Your task to perform on an android device: Do I have any events today? Image 0: 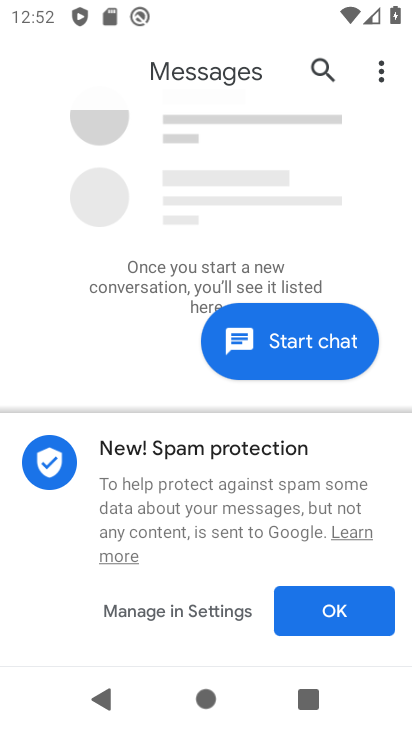
Step 0: press back button
Your task to perform on an android device: Do I have any events today? Image 1: 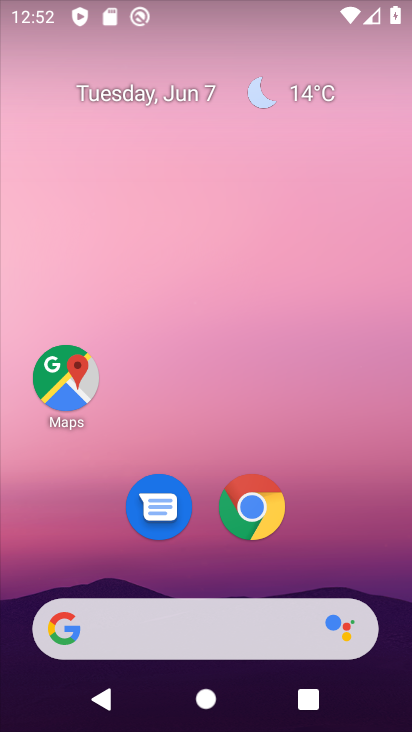
Step 1: drag from (184, 566) to (308, 106)
Your task to perform on an android device: Do I have any events today? Image 2: 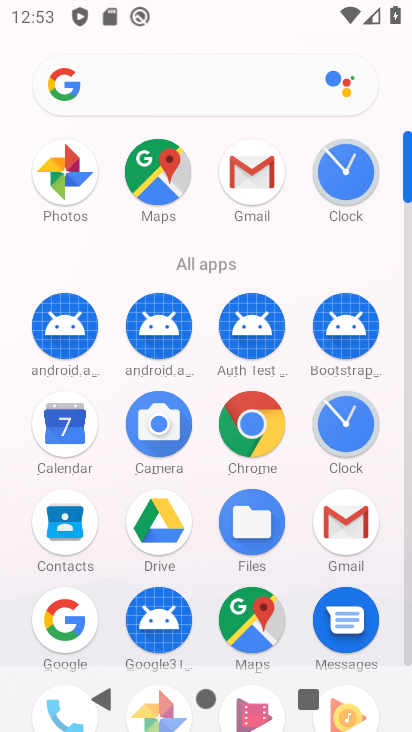
Step 2: click (73, 423)
Your task to perform on an android device: Do I have any events today? Image 3: 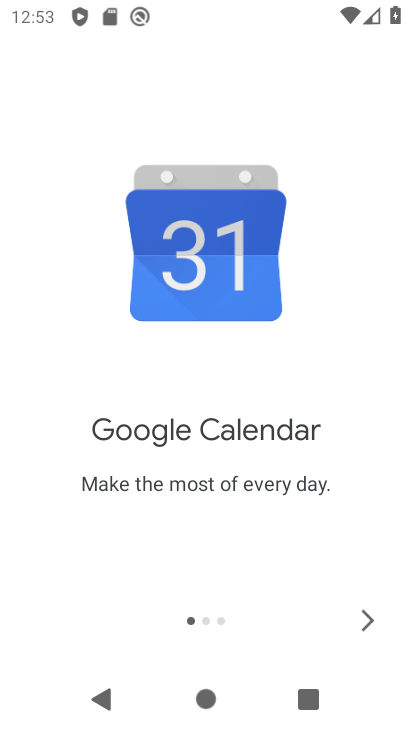
Step 3: click (357, 611)
Your task to perform on an android device: Do I have any events today? Image 4: 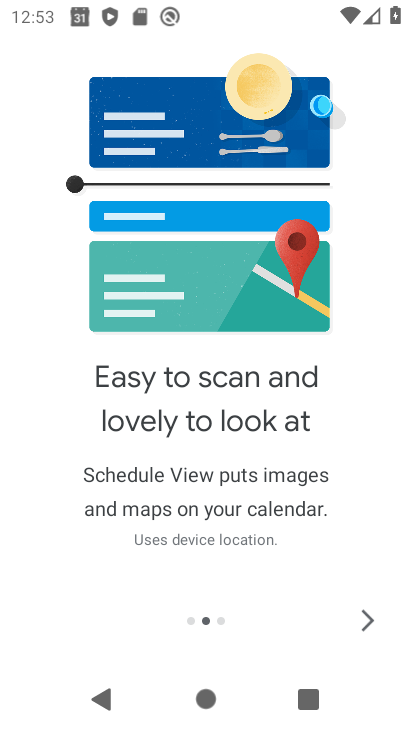
Step 4: click (339, 614)
Your task to perform on an android device: Do I have any events today? Image 5: 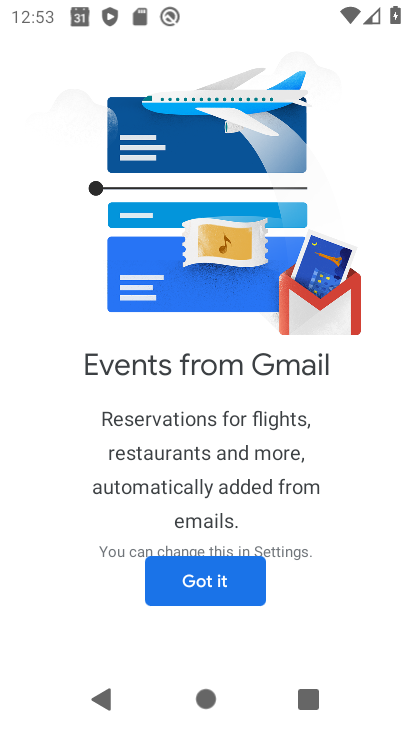
Step 5: click (217, 574)
Your task to perform on an android device: Do I have any events today? Image 6: 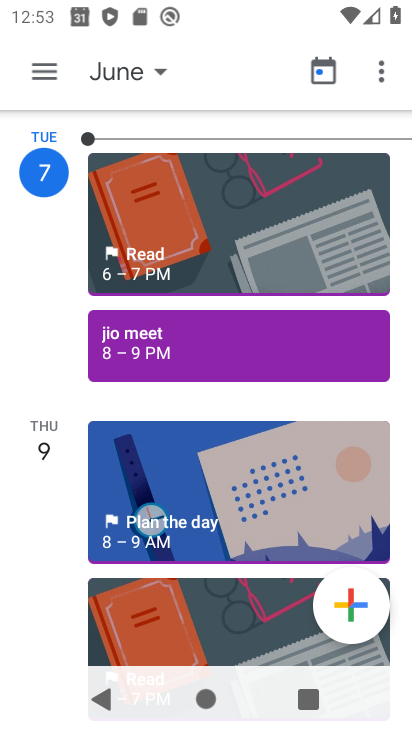
Step 6: drag from (219, 274) to (208, 467)
Your task to perform on an android device: Do I have any events today? Image 7: 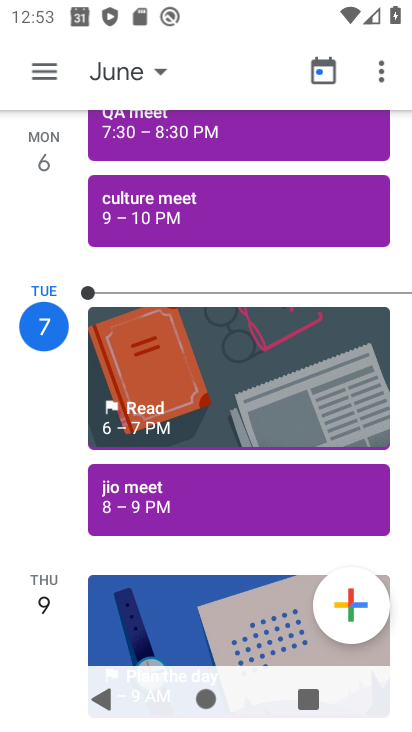
Step 7: click (176, 498)
Your task to perform on an android device: Do I have any events today? Image 8: 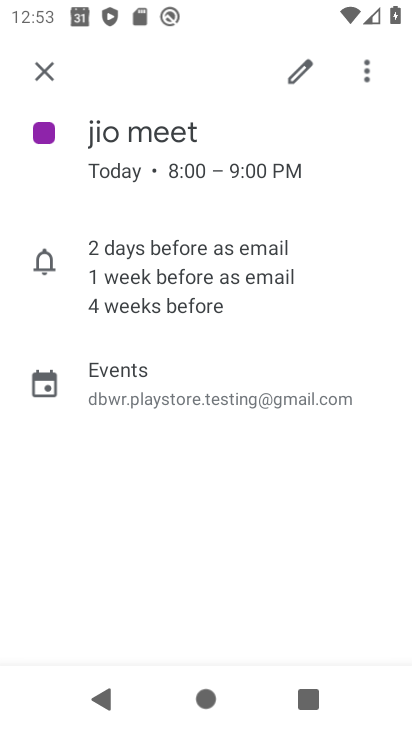
Step 8: task complete